Your task to perform on an android device: Is it going to rain today? Image 0: 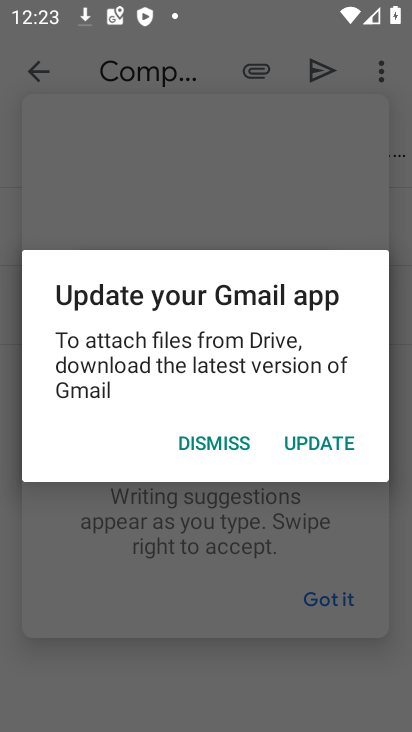
Step 0: click (231, 443)
Your task to perform on an android device: Is it going to rain today? Image 1: 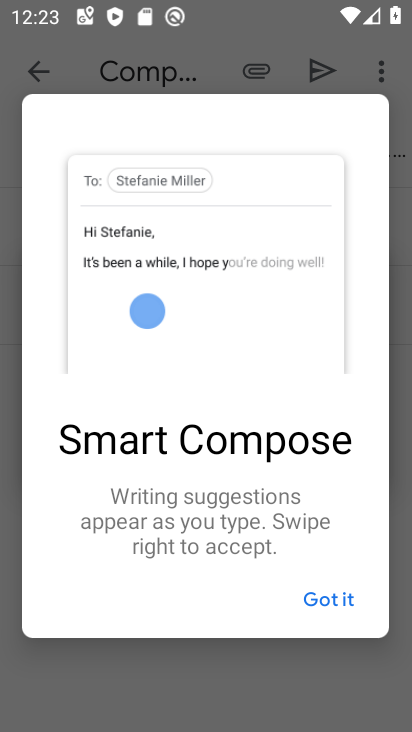
Step 1: press home button
Your task to perform on an android device: Is it going to rain today? Image 2: 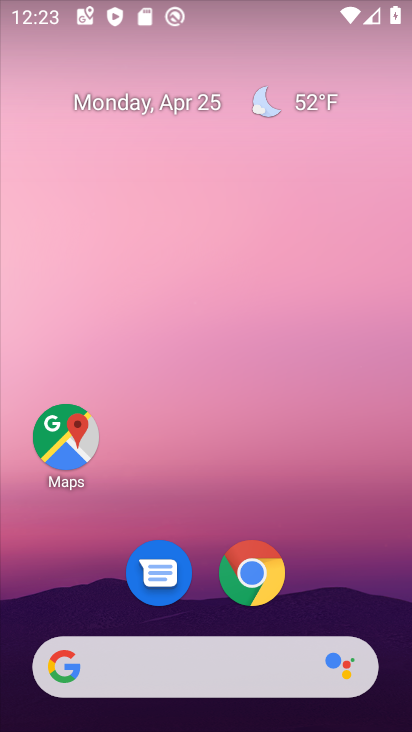
Step 2: click (334, 114)
Your task to perform on an android device: Is it going to rain today? Image 3: 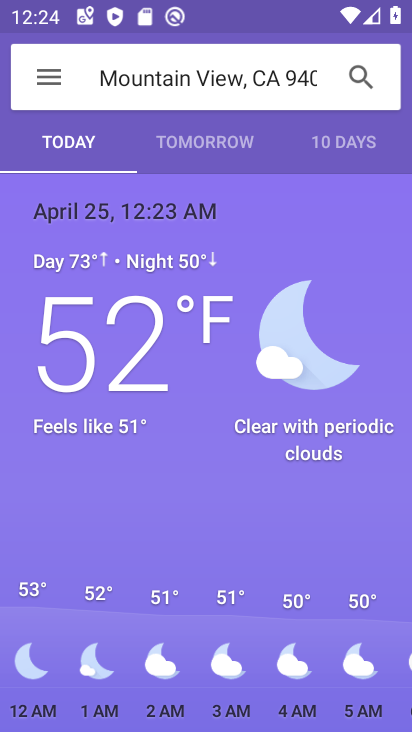
Step 3: task complete